Your task to perform on an android device: find photos in the google photos app Image 0: 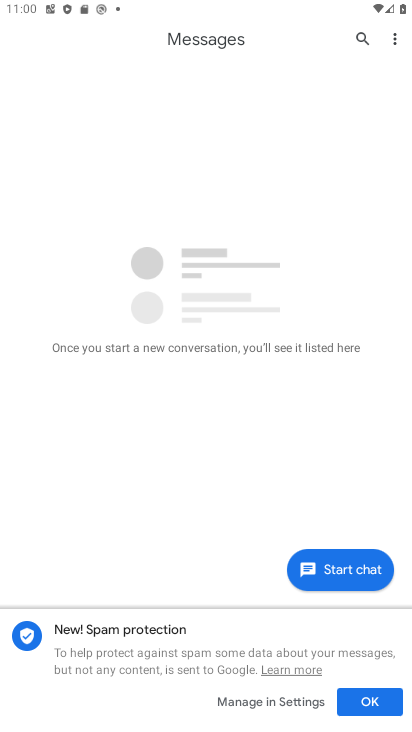
Step 0: press home button
Your task to perform on an android device: find photos in the google photos app Image 1: 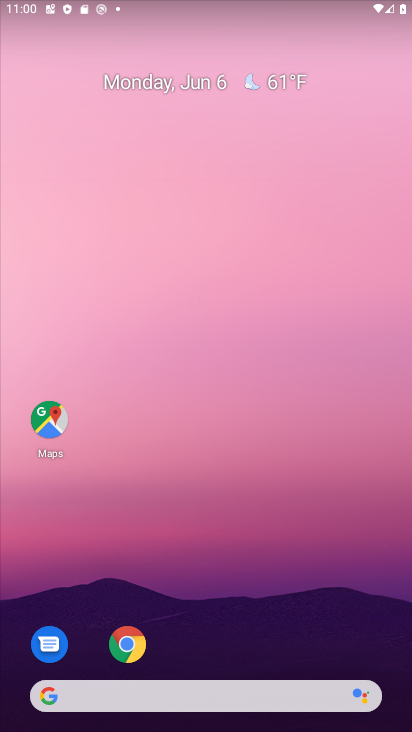
Step 1: drag from (237, 654) to (236, 181)
Your task to perform on an android device: find photos in the google photos app Image 2: 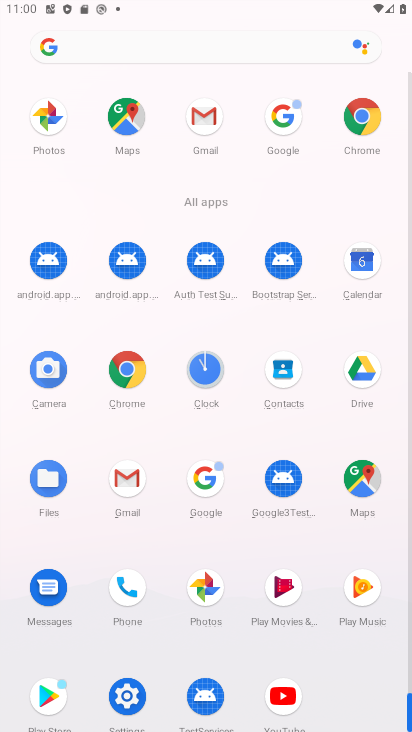
Step 2: click (211, 602)
Your task to perform on an android device: find photos in the google photos app Image 3: 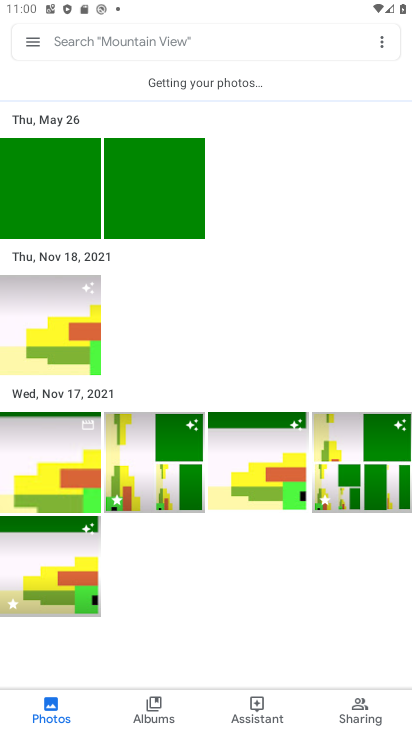
Step 3: task complete